Your task to perform on an android device: check data usage Image 0: 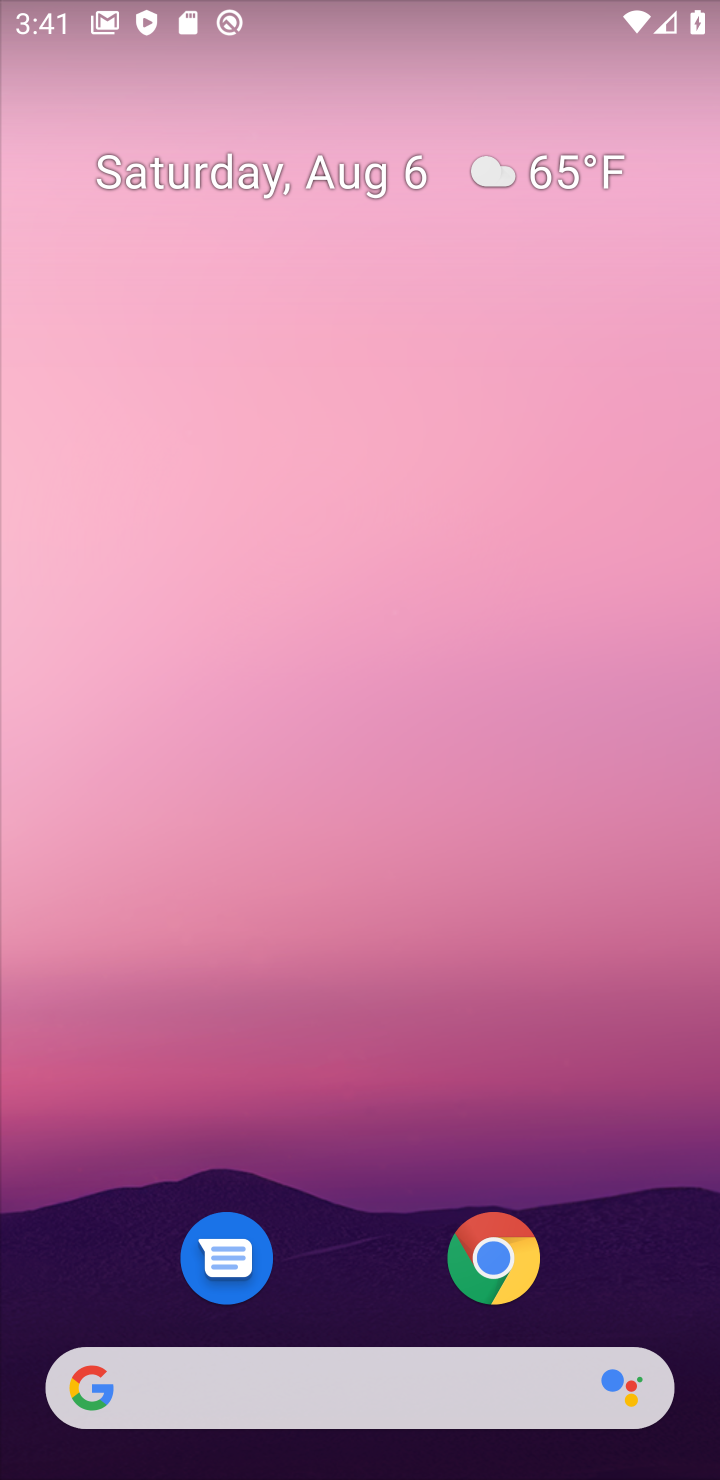
Step 0: drag from (322, 1308) to (381, 293)
Your task to perform on an android device: check data usage Image 1: 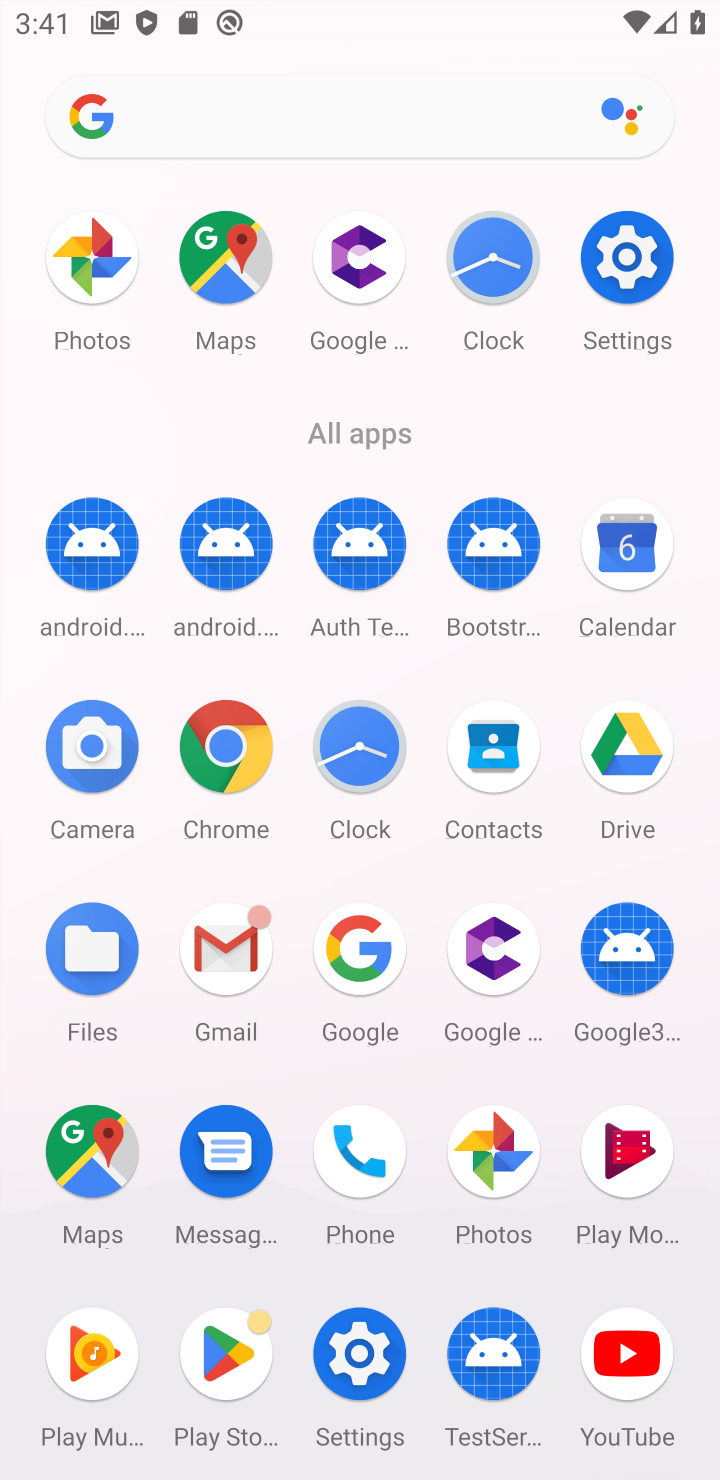
Step 1: click (366, 1362)
Your task to perform on an android device: check data usage Image 2: 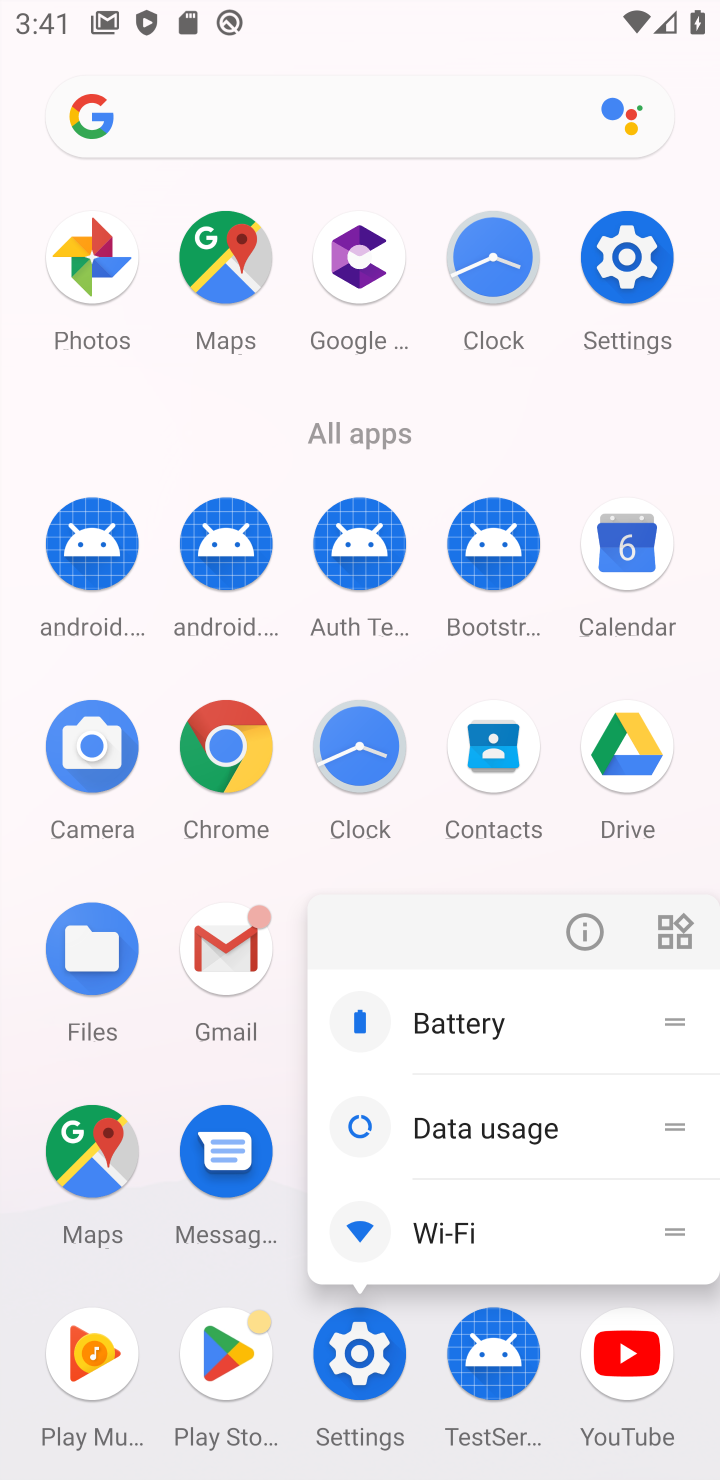
Step 2: click (366, 1362)
Your task to perform on an android device: check data usage Image 3: 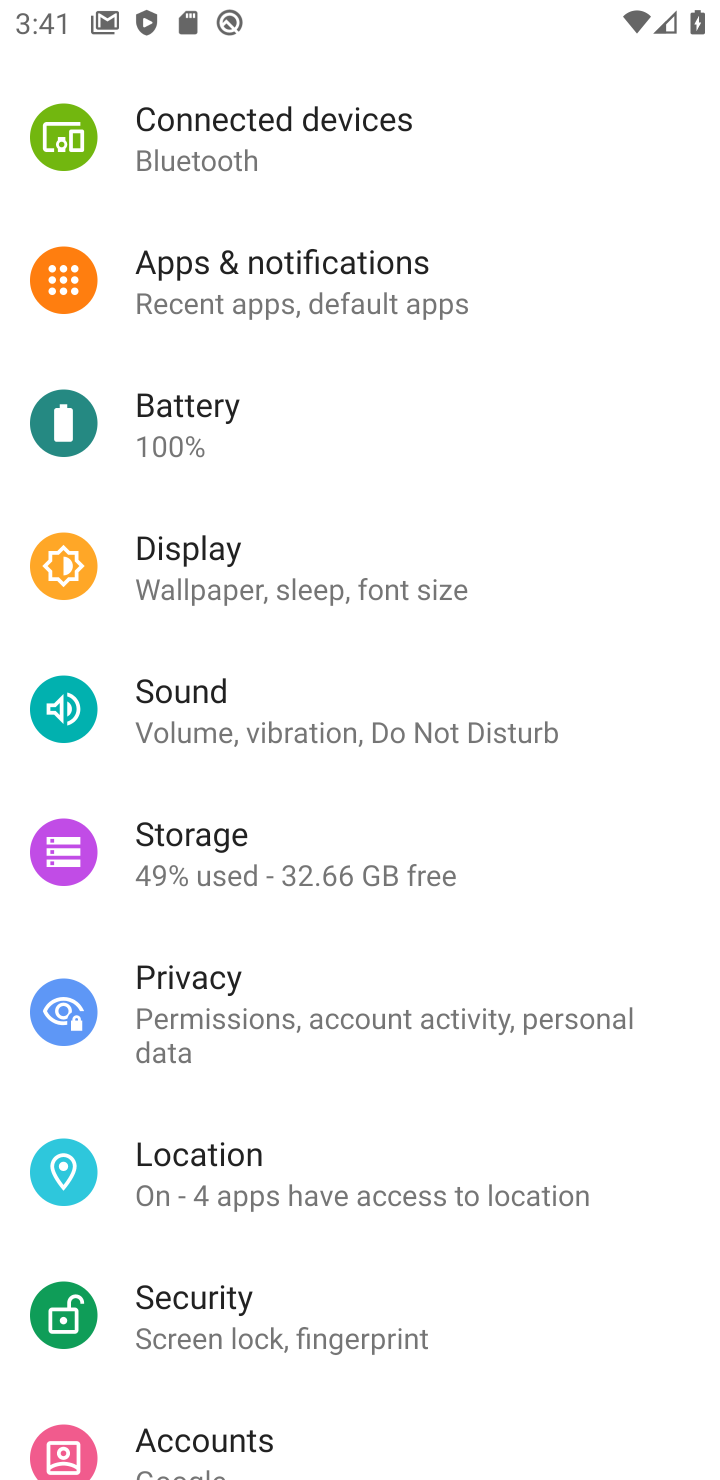
Step 3: drag from (372, 209) to (402, 960)
Your task to perform on an android device: check data usage Image 4: 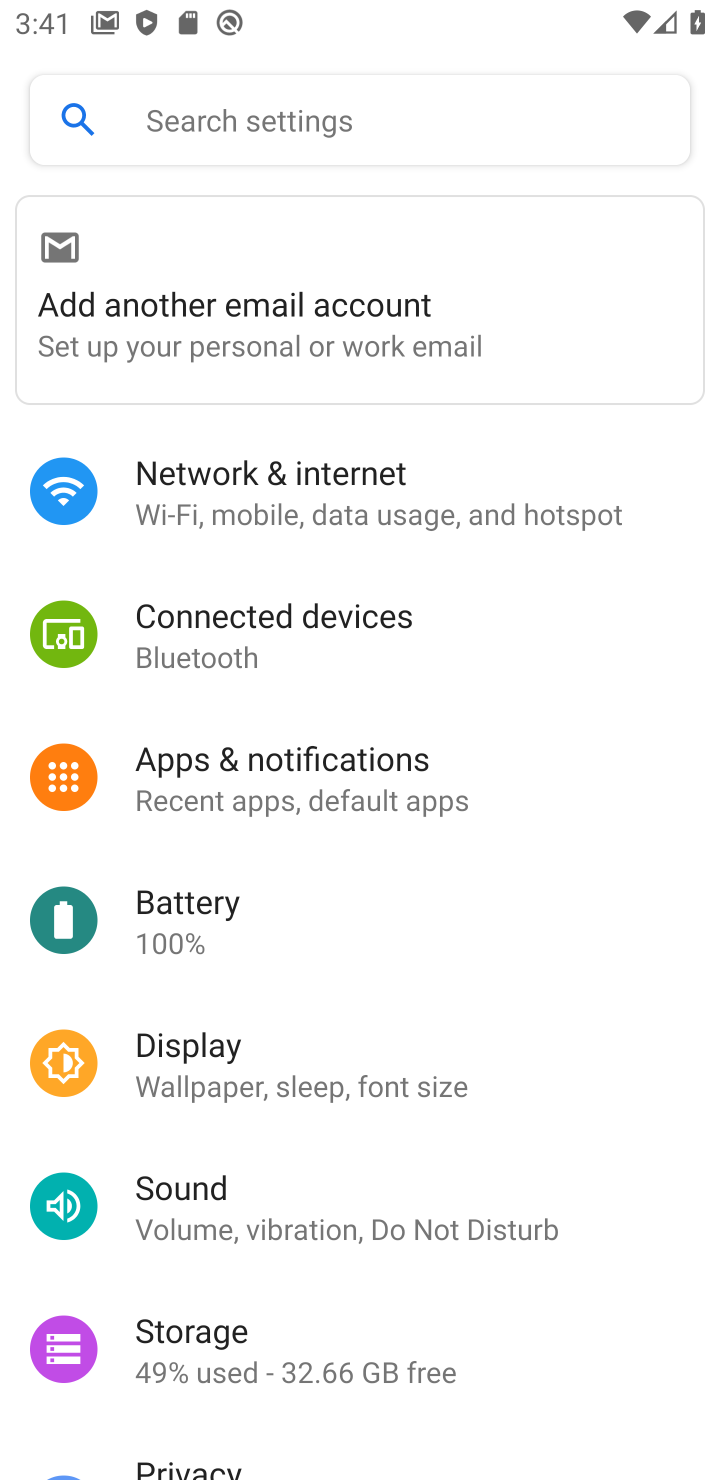
Step 4: click (361, 519)
Your task to perform on an android device: check data usage Image 5: 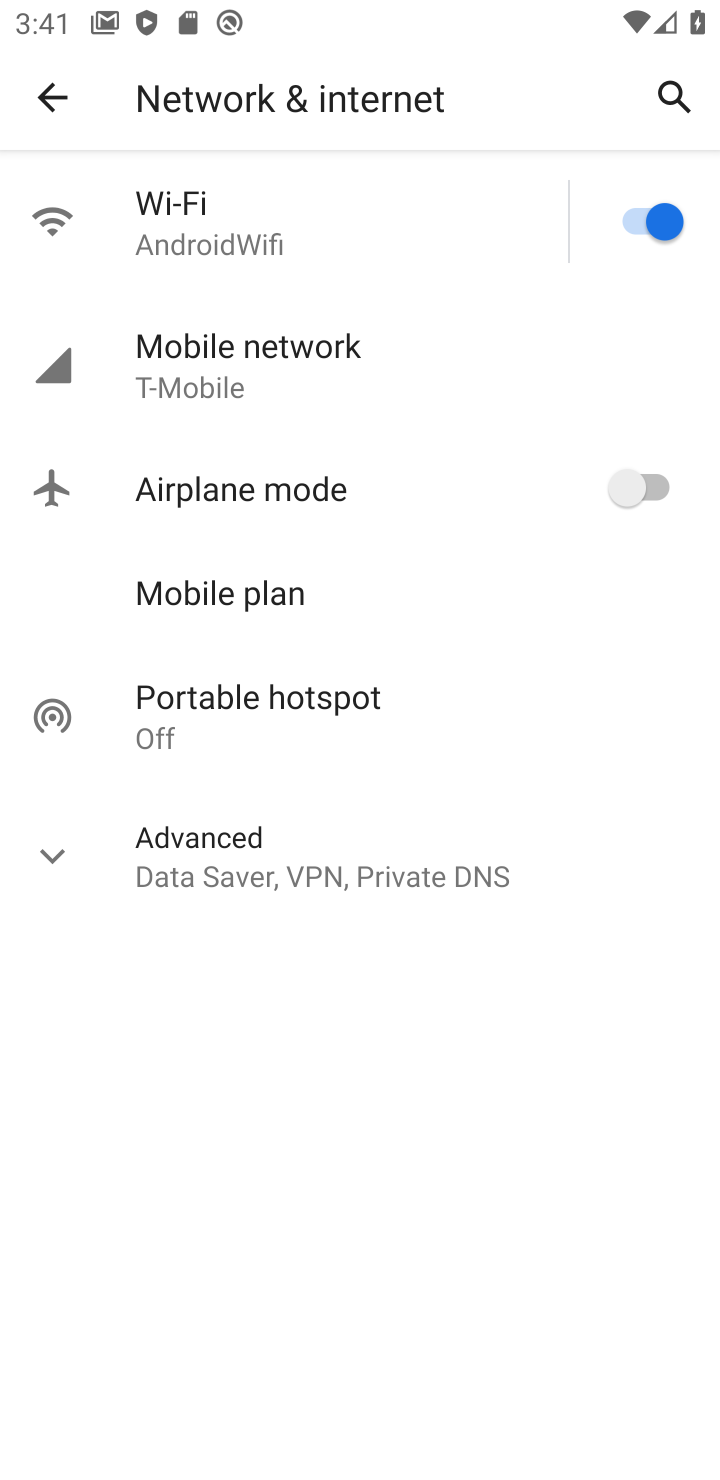
Step 5: click (284, 380)
Your task to perform on an android device: check data usage Image 6: 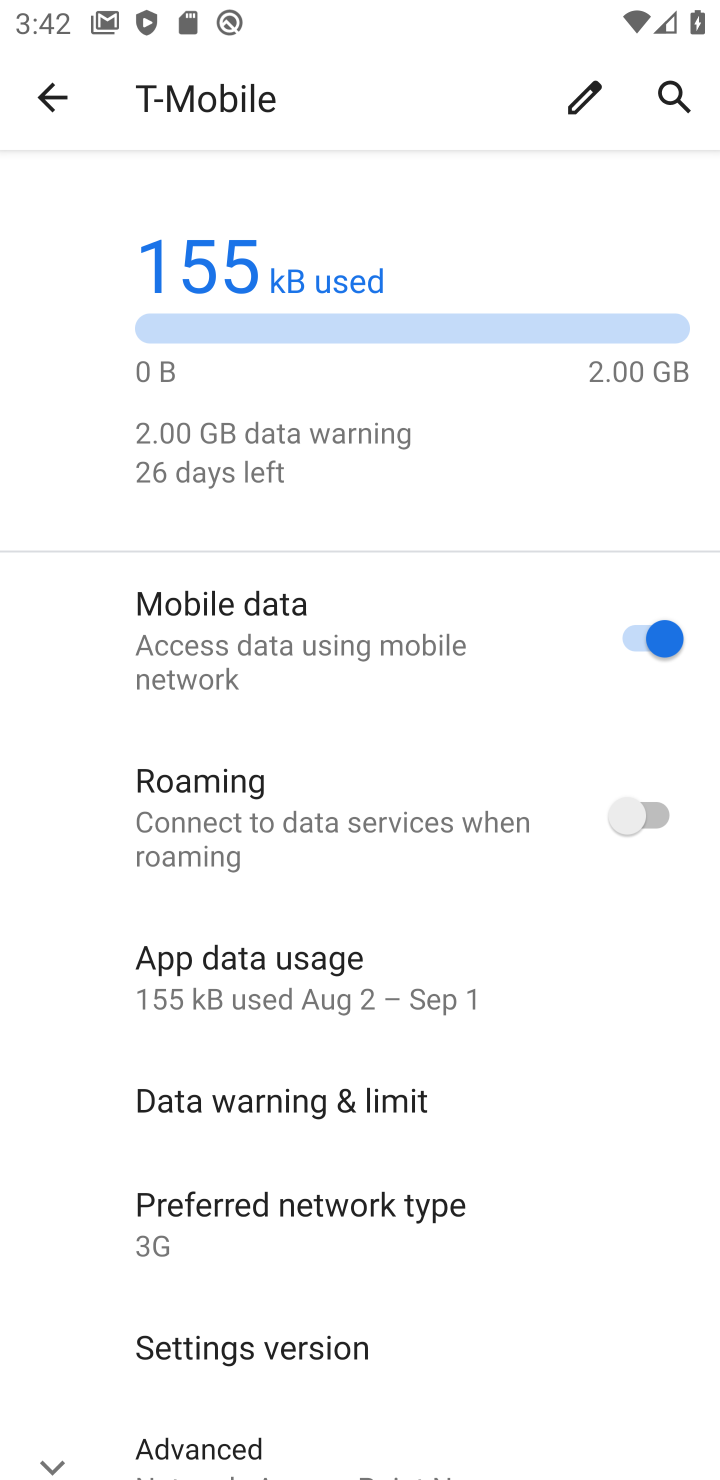
Step 6: click (271, 975)
Your task to perform on an android device: check data usage Image 7: 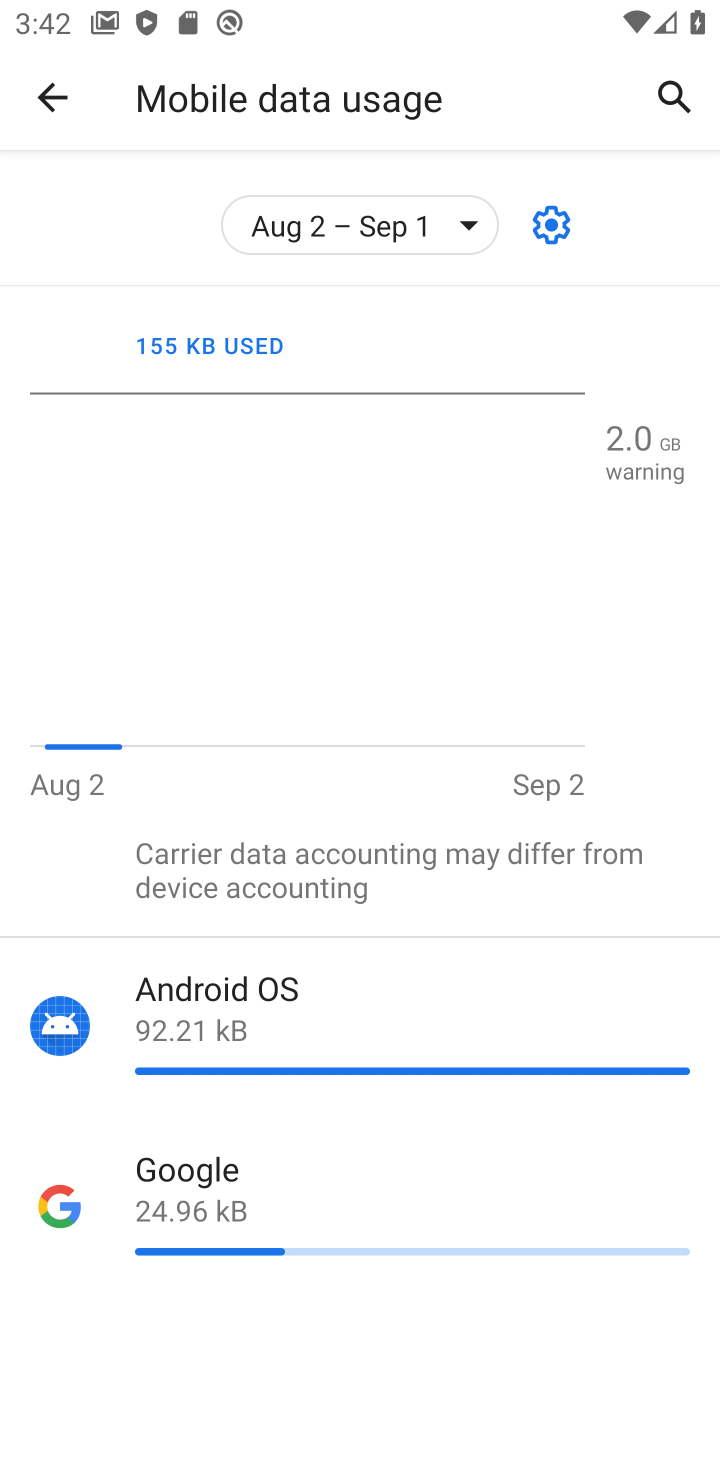
Step 7: task complete